Your task to perform on an android device: turn on priority inbox in the gmail app Image 0: 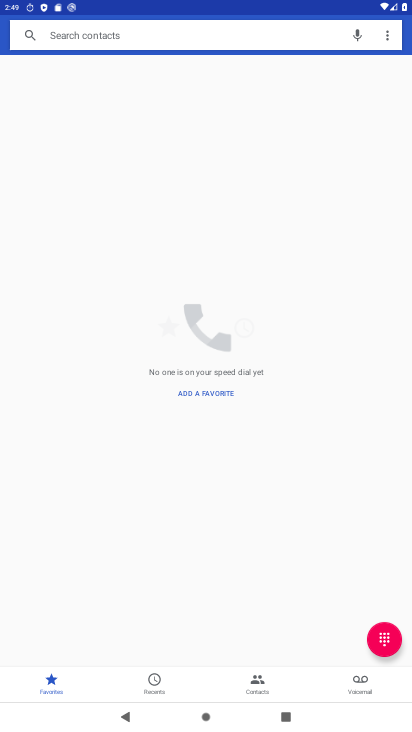
Step 0: press home button
Your task to perform on an android device: turn on priority inbox in the gmail app Image 1: 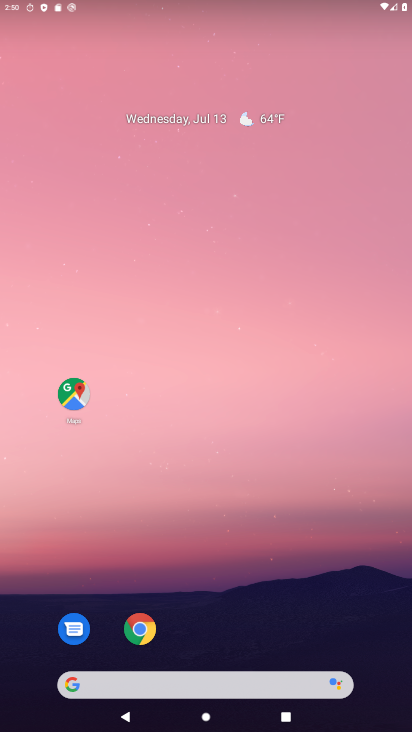
Step 1: drag from (287, 679) to (263, 83)
Your task to perform on an android device: turn on priority inbox in the gmail app Image 2: 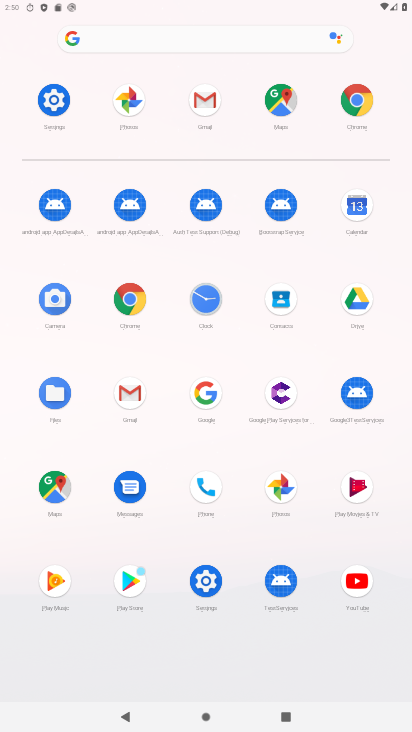
Step 2: click (126, 381)
Your task to perform on an android device: turn on priority inbox in the gmail app Image 3: 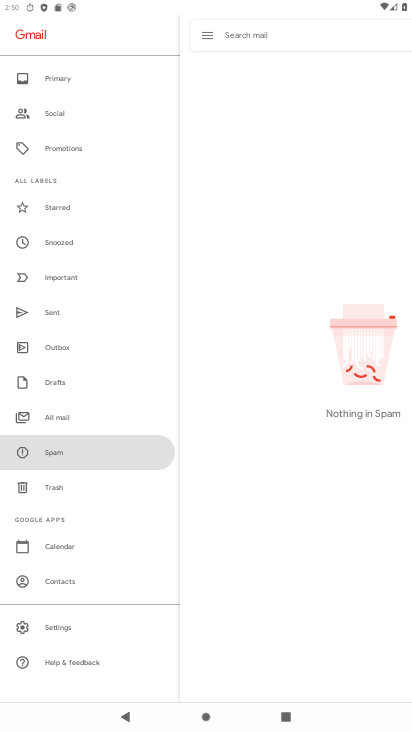
Step 3: click (86, 629)
Your task to perform on an android device: turn on priority inbox in the gmail app Image 4: 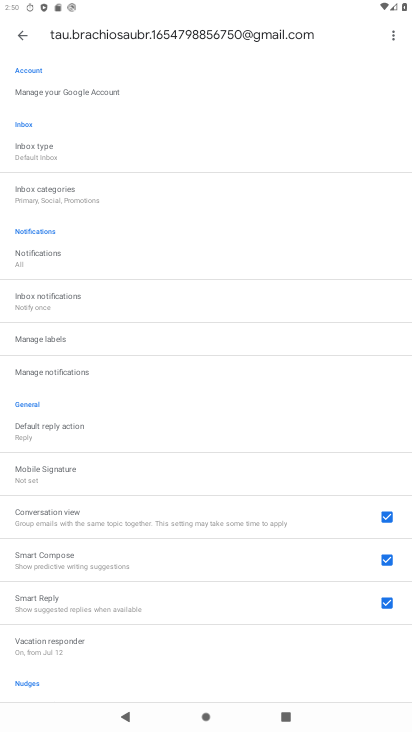
Step 4: click (51, 162)
Your task to perform on an android device: turn on priority inbox in the gmail app Image 5: 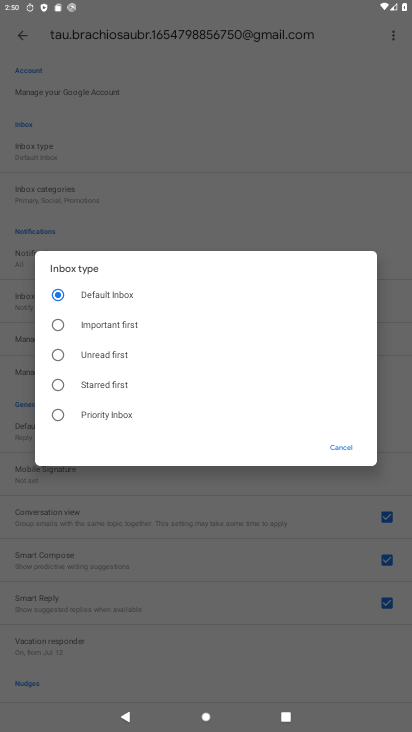
Step 5: click (57, 413)
Your task to perform on an android device: turn on priority inbox in the gmail app Image 6: 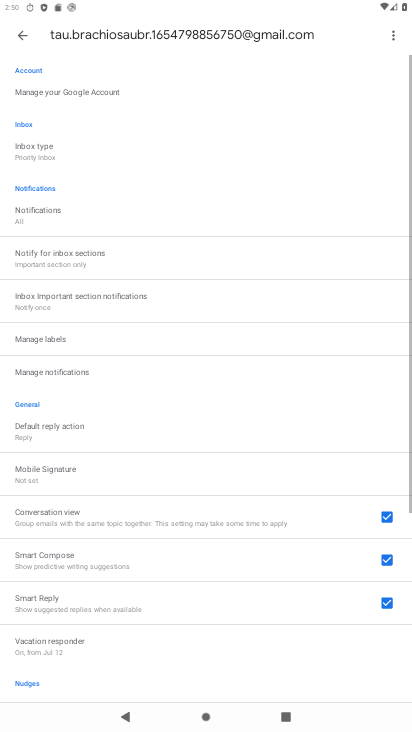
Step 6: task complete